Your task to perform on an android device: check the backup settings in the google photos Image 0: 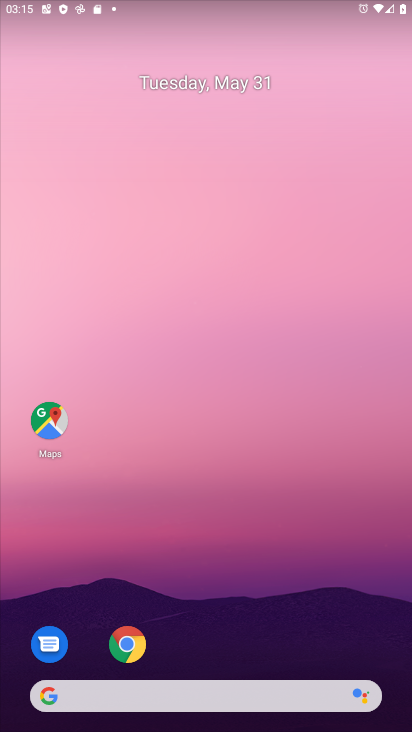
Step 0: drag from (247, 600) to (195, 153)
Your task to perform on an android device: check the backup settings in the google photos Image 1: 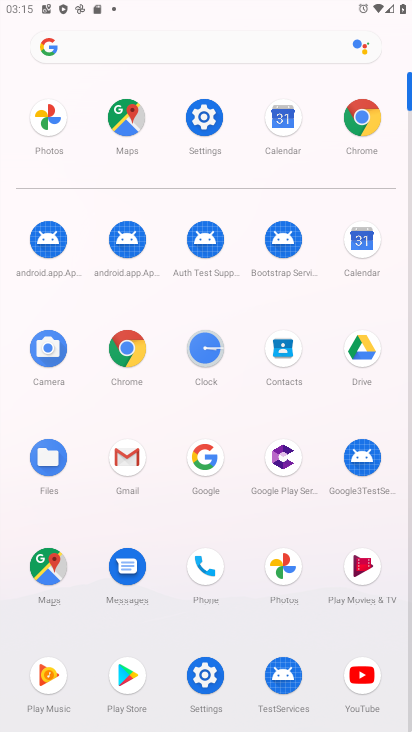
Step 1: click (292, 563)
Your task to perform on an android device: check the backup settings in the google photos Image 2: 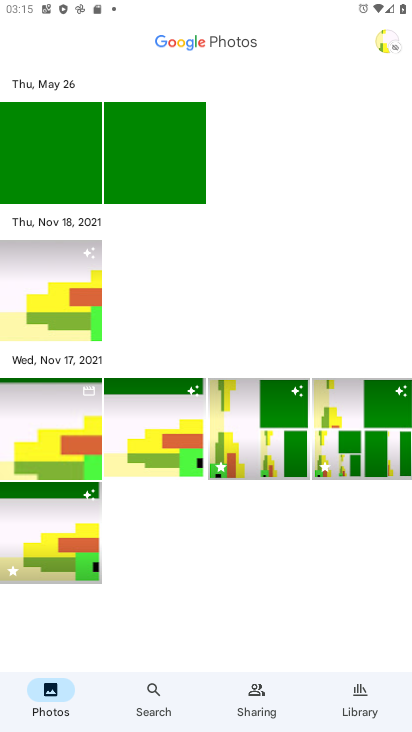
Step 2: click (385, 34)
Your task to perform on an android device: check the backup settings in the google photos Image 3: 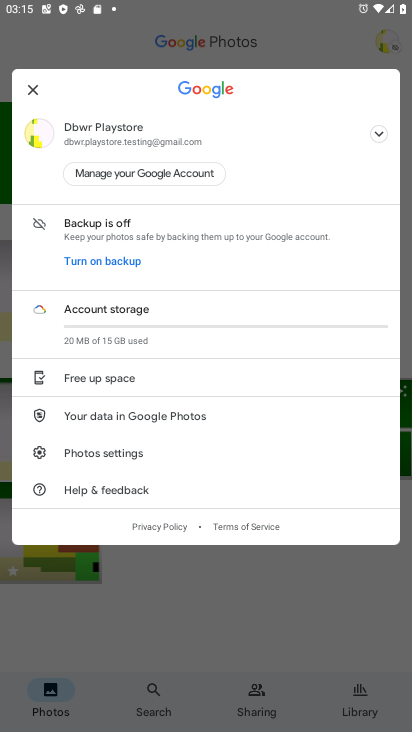
Step 3: click (145, 233)
Your task to perform on an android device: check the backup settings in the google photos Image 4: 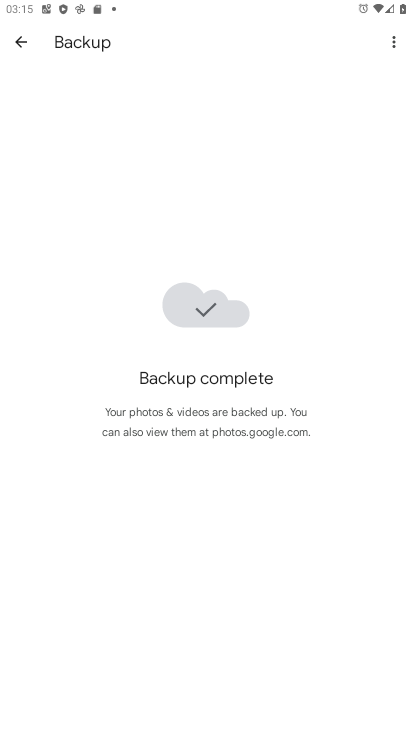
Step 4: click (24, 38)
Your task to perform on an android device: check the backup settings in the google photos Image 5: 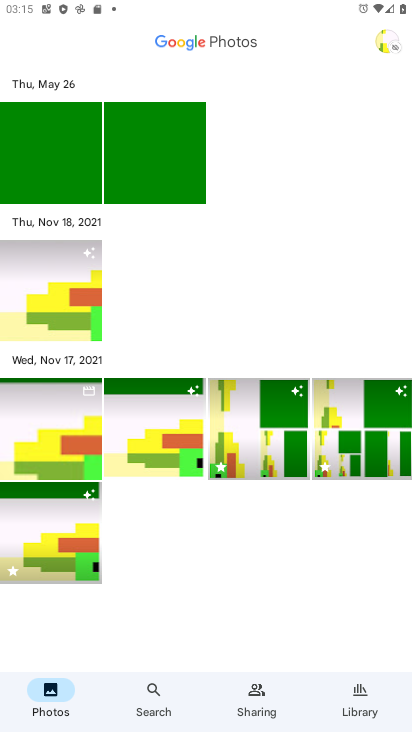
Step 5: click (379, 36)
Your task to perform on an android device: check the backup settings in the google photos Image 6: 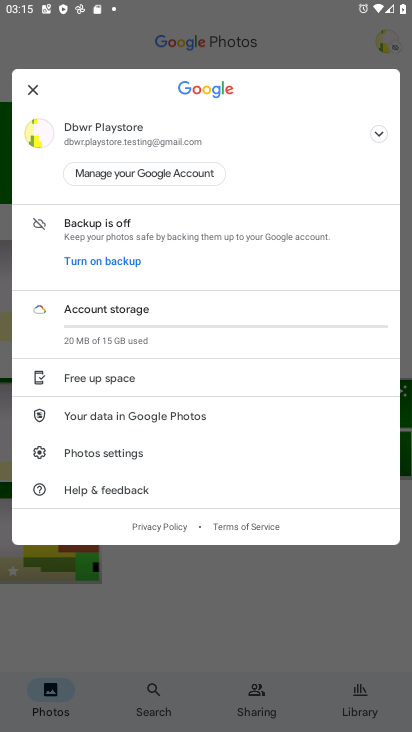
Step 6: click (113, 449)
Your task to perform on an android device: check the backup settings in the google photos Image 7: 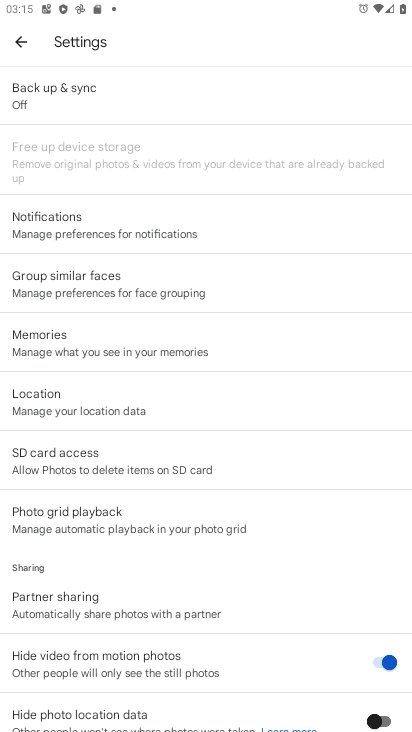
Step 7: click (124, 99)
Your task to perform on an android device: check the backup settings in the google photos Image 8: 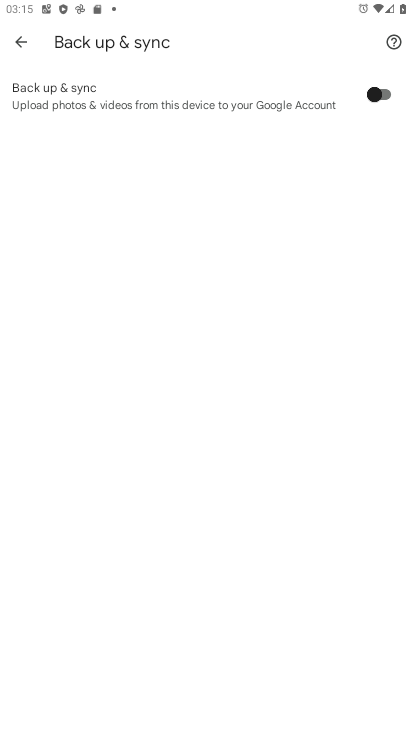
Step 8: task complete